Your task to perform on an android device: Open Google Maps and go to "Timeline" Image 0: 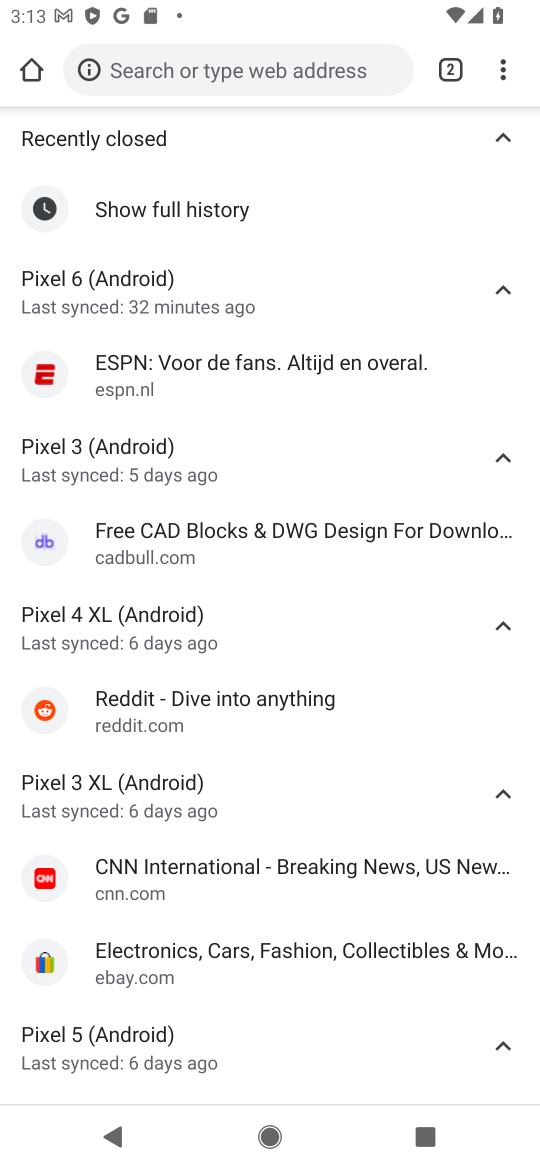
Step 0: press back button
Your task to perform on an android device: Open Google Maps and go to "Timeline" Image 1: 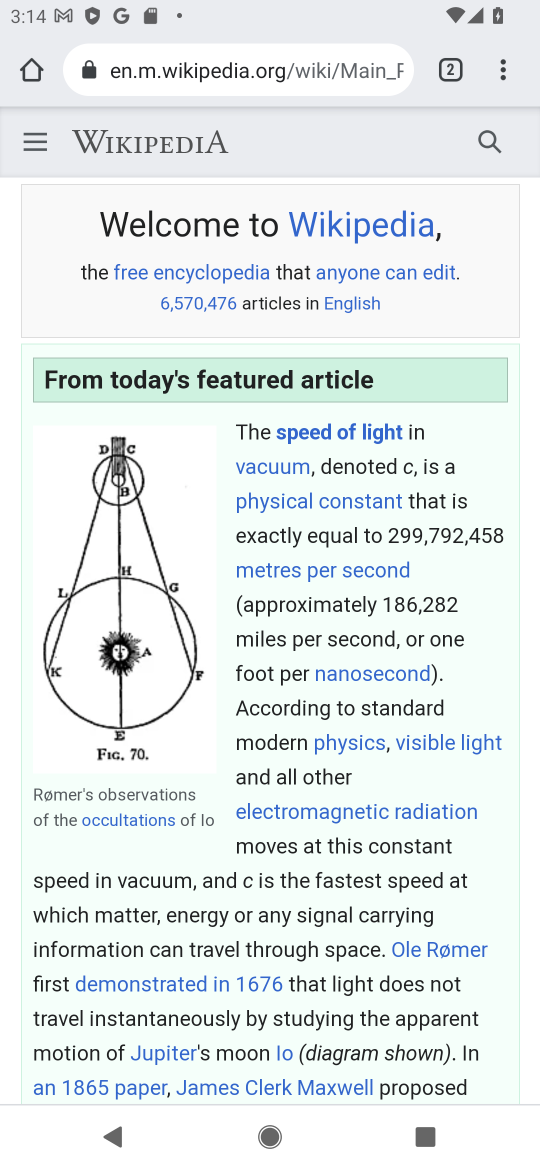
Step 1: press back button
Your task to perform on an android device: Open Google Maps and go to "Timeline" Image 2: 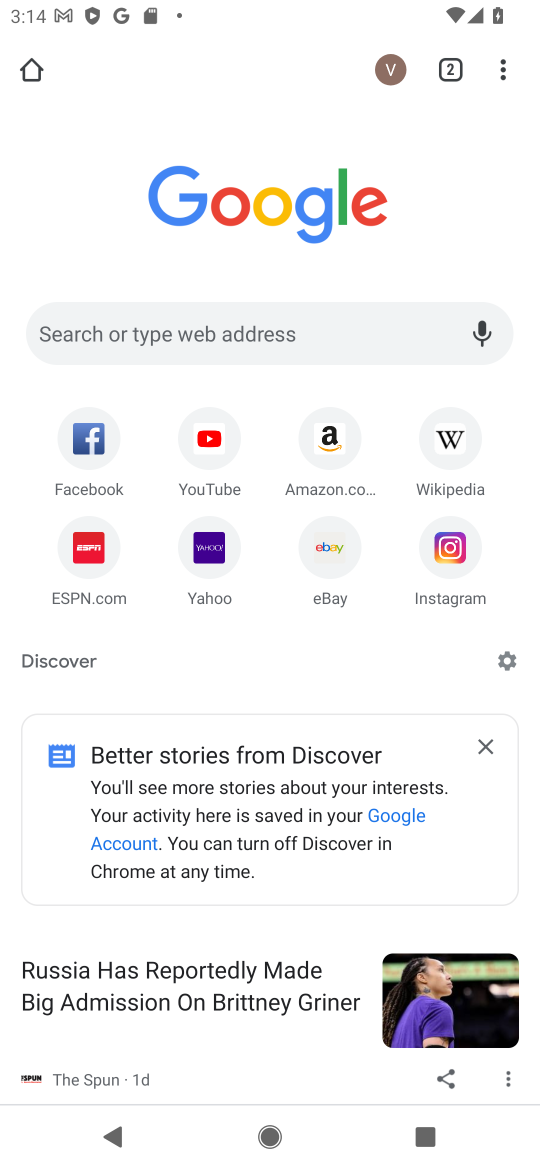
Step 2: press back button
Your task to perform on an android device: Open Google Maps and go to "Timeline" Image 3: 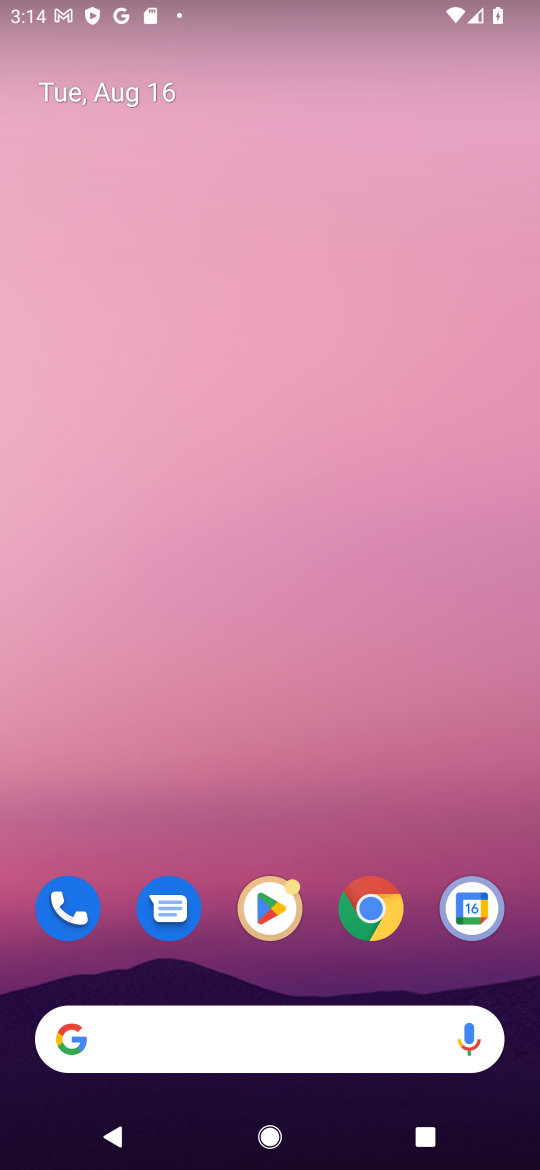
Step 3: drag from (284, 991) to (290, 159)
Your task to perform on an android device: Open Google Maps and go to "Timeline" Image 4: 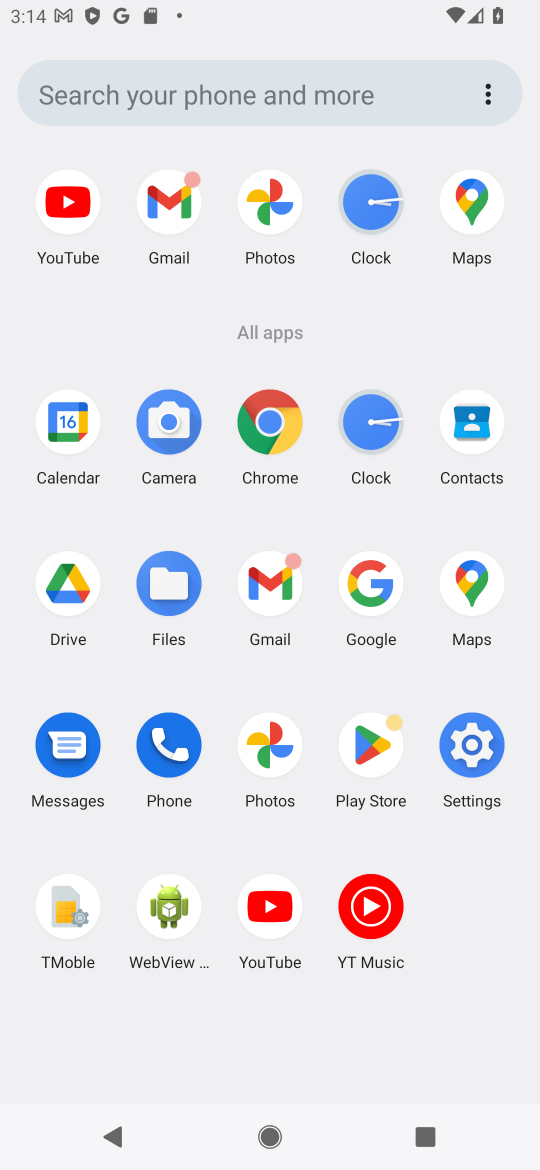
Step 4: click (481, 194)
Your task to perform on an android device: Open Google Maps and go to "Timeline" Image 5: 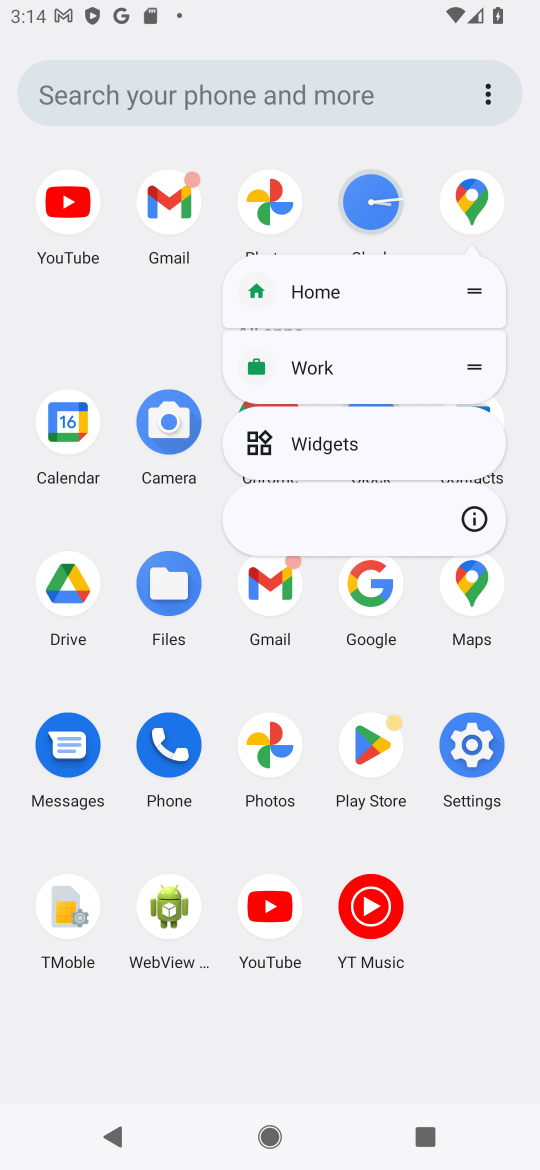
Step 5: click (466, 183)
Your task to perform on an android device: Open Google Maps and go to "Timeline" Image 6: 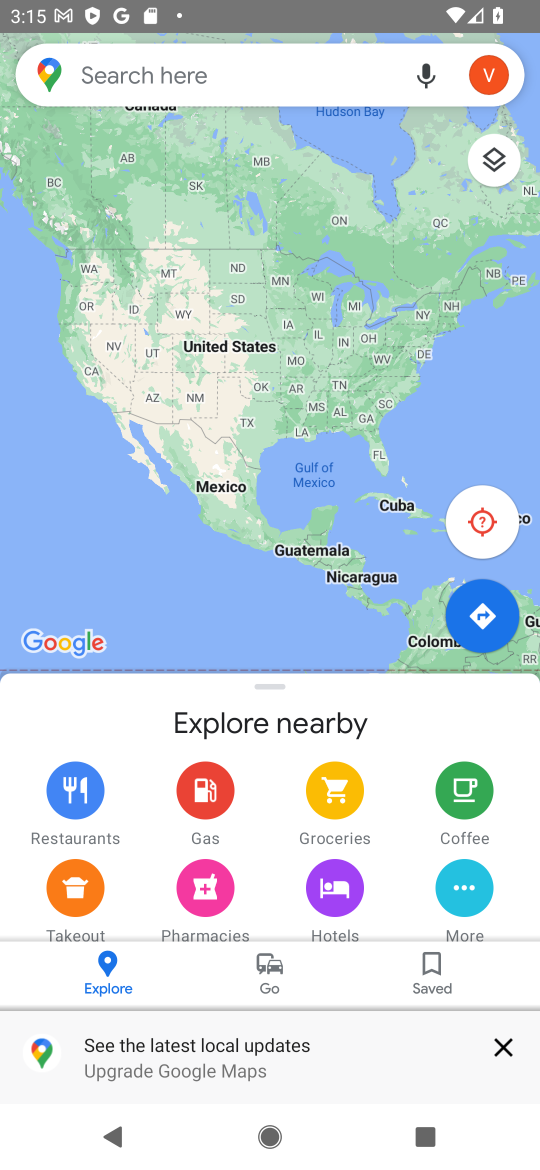
Step 6: click (480, 77)
Your task to perform on an android device: Open Google Maps and go to "Timeline" Image 7: 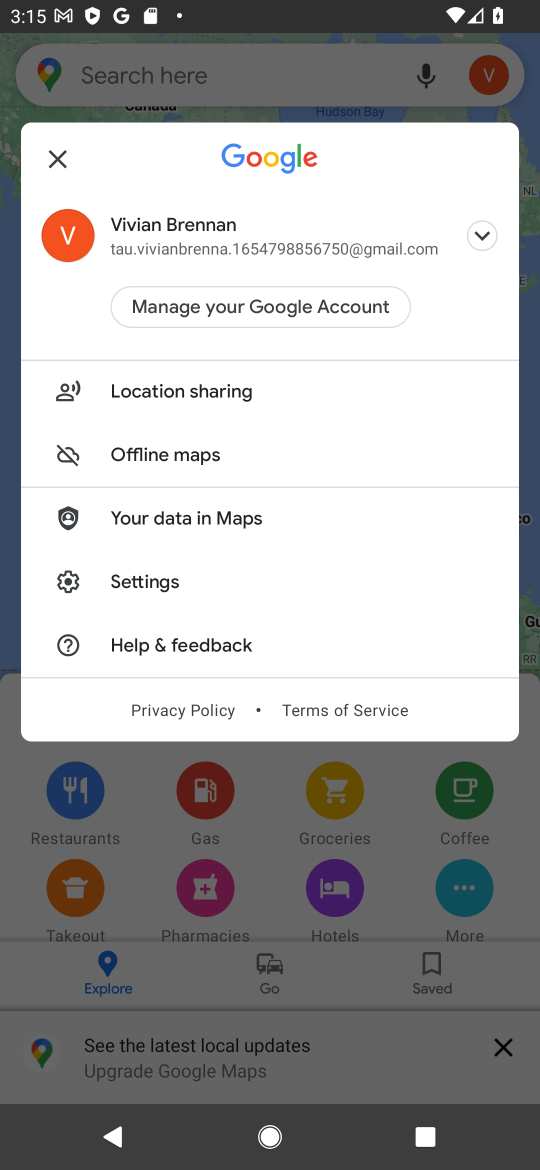
Step 7: click (92, 786)
Your task to perform on an android device: Open Google Maps and go to "Timeline" Image 8: 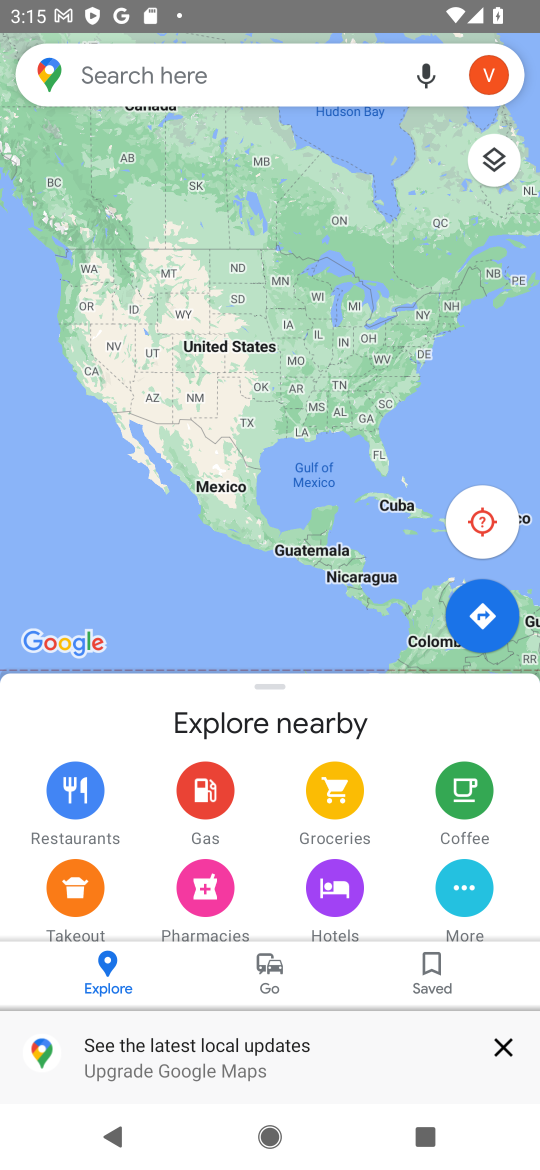
Step 8: task complete